Your task to perform on an android device: Open Google Chrome and open the bookmarks view Image 0: 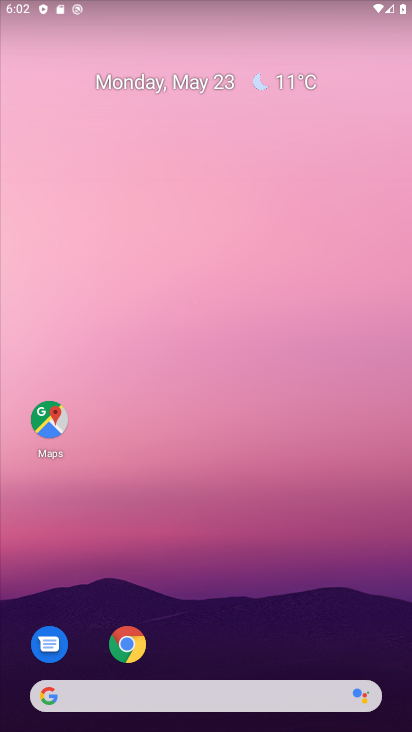
Step 0: click (133, 652)
Your task to perform on an android device: Open Google Chrome and open the bookmarks view Image 1: 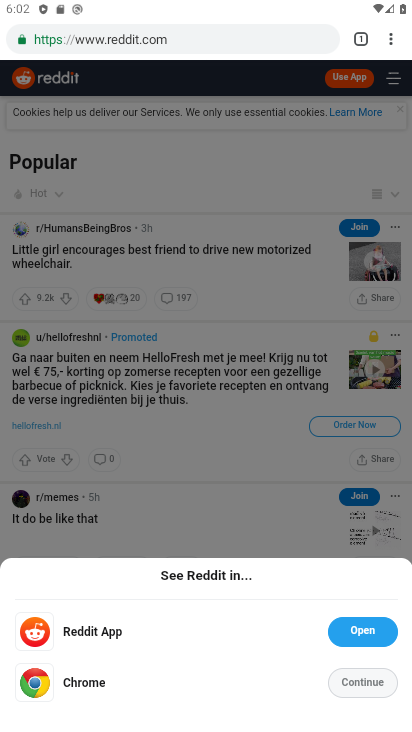
Step 1: click (394, 40)
Your task to perform on an android device: Open Google Chrome and open the bookmarks view Image 2: 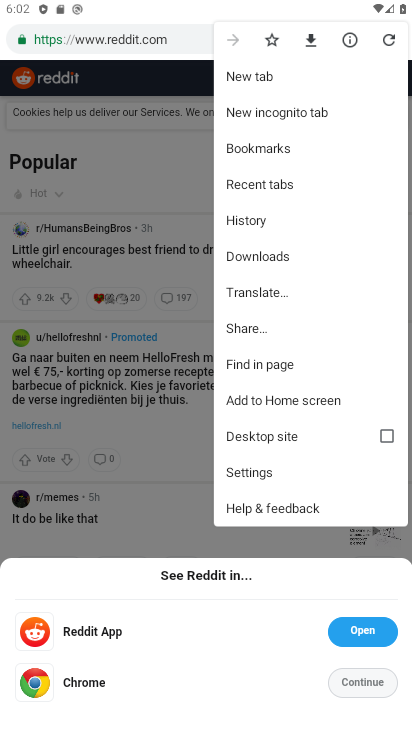
Step 2: click (265, 147)
Your task to perform on an android device: Open Google Chrome and open the bookmarks view Image 3: 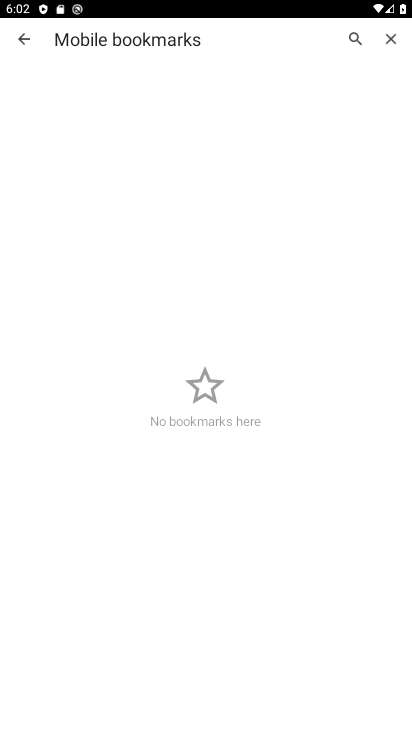
Step 3: task complete